Your task to perform on an android device: See recent photos Image 0: 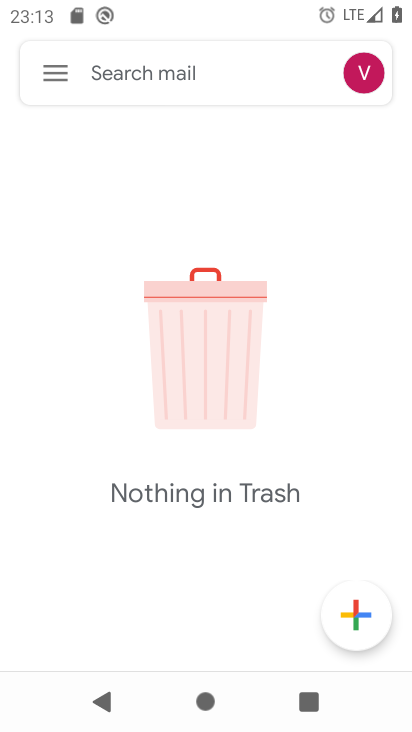
Step 0: press home button
Your task to perform on an android device: See recent photos Image 1: 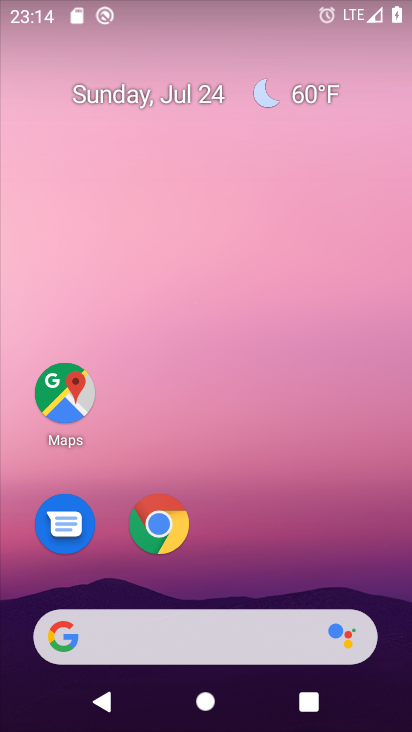
Step 1: drag from (278, 559) to (296, 22)
Your task to perform on an android device: See recent photos Image 2: 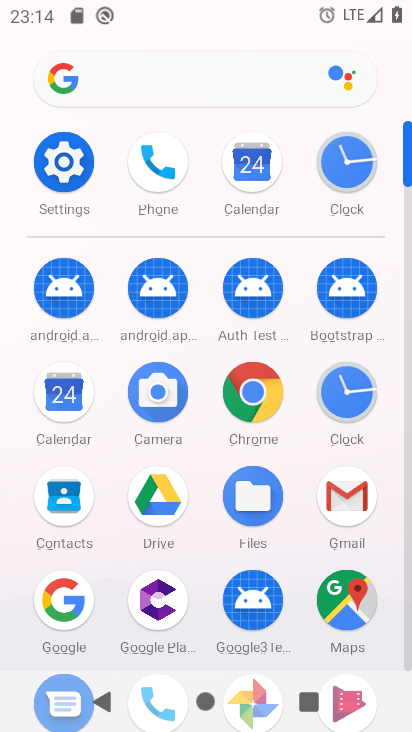
Step 2: drag from (227, 440) to (244, 244)
Your task to perform on an android device: See recent photos Image 3: 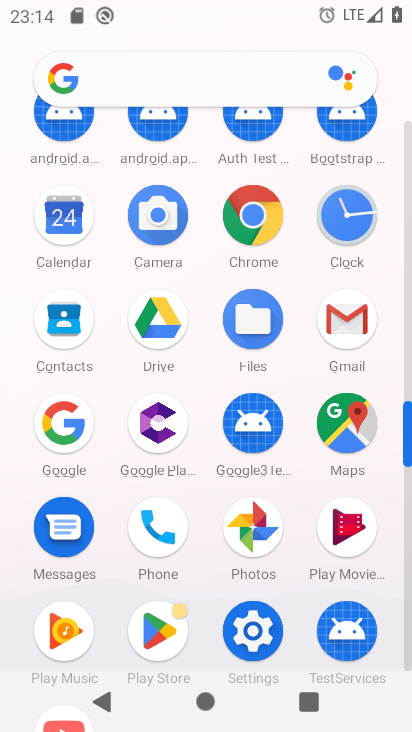
Step 3: click (250, 522)
Your task to perform on an android device: See recent photos Image 4: 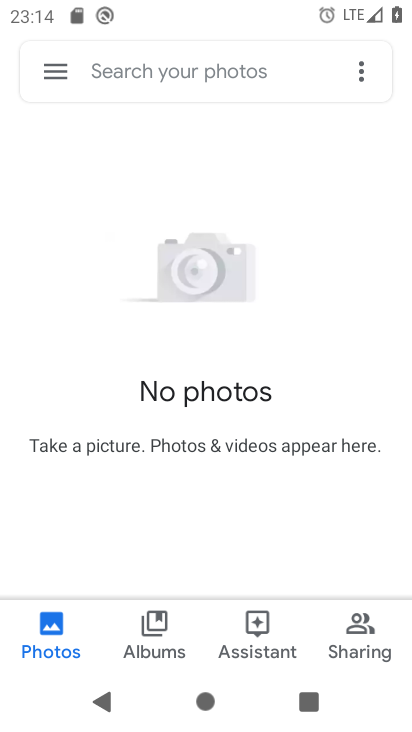
Step 4: task complete